Your task to perform on an android device: turn off data saver in the chrome app Image 0: 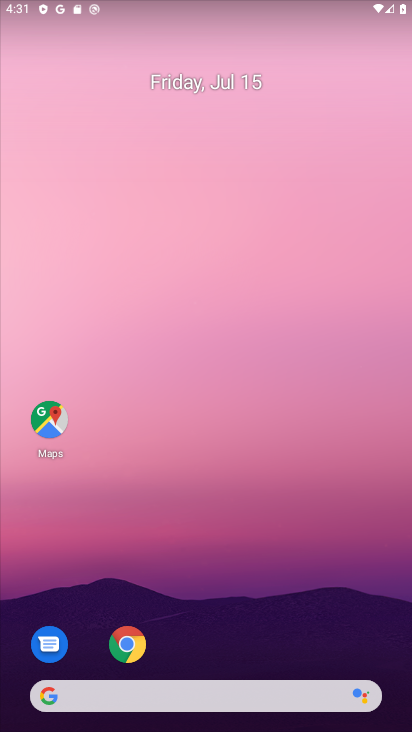
Step 0: click (130, 644)
Your task to perform on an android device: turn off data saver in the chrome app Image 1: 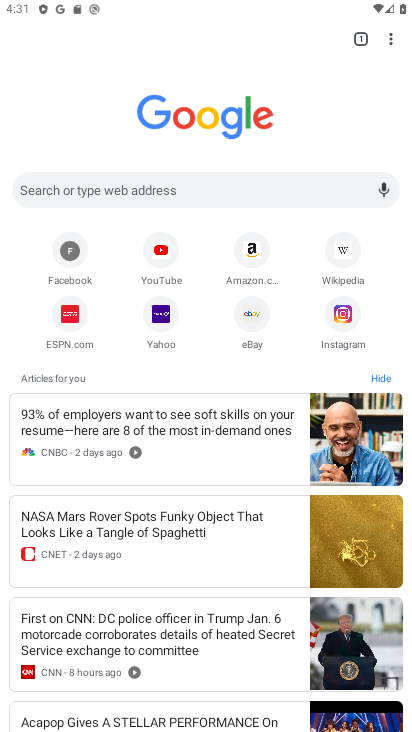
Step 1: click (393, 47)
Your task to perform on an android device: turn off data saver in the chrome app Image 2: 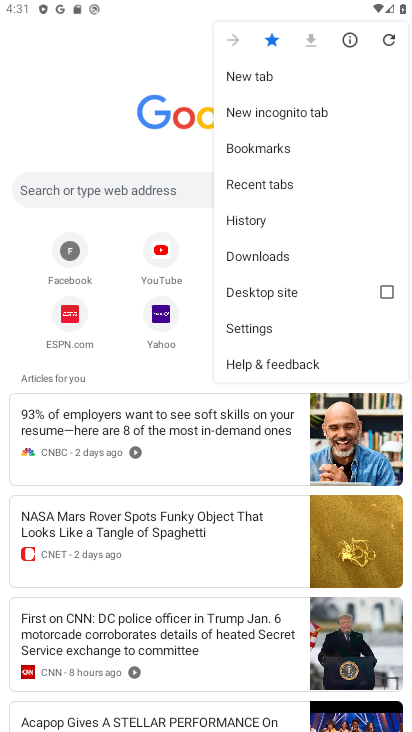
Step 2: click (258, 331)
Your task to perform on an android device: turn off data saver in the chrome app Image 3: 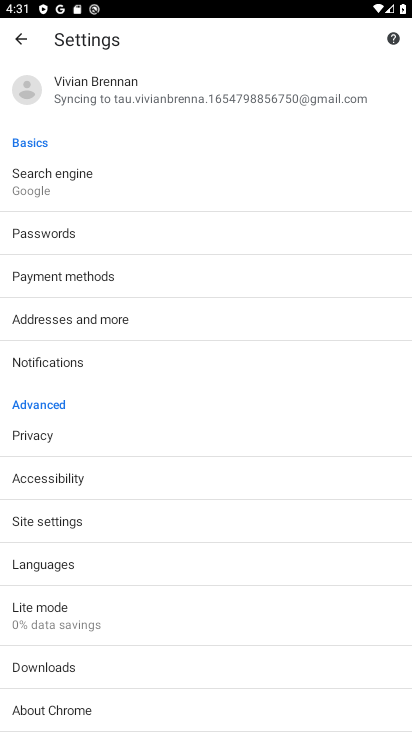
Step 3: click (94, 615)
Your task to perform on an android device: turn off data saver in the chrome app Image 4: 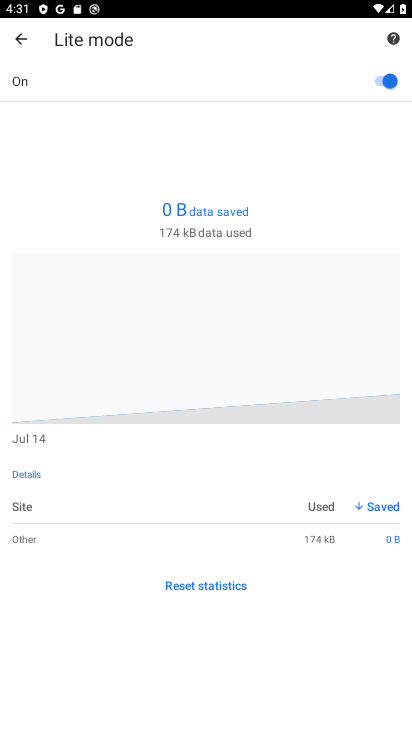
Step 4: click (392, 85)
Your task to perform on an android device: turn off data saver in the chrome app Image 5: 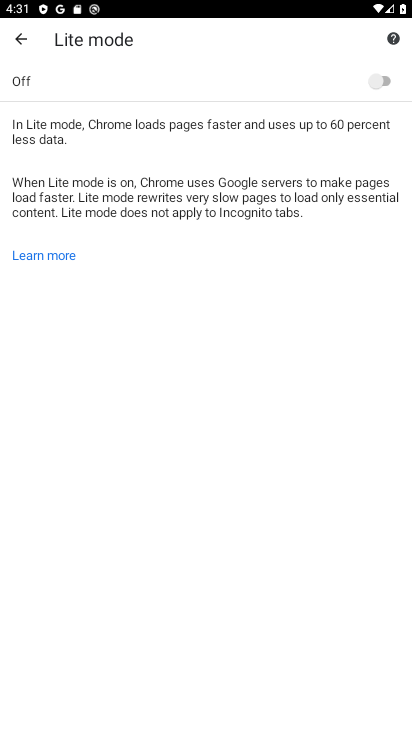
Step 5: task complete